Your task to perform on an android device: open app "Adobe Acrobat Reader: Edit PDF" Image 0: 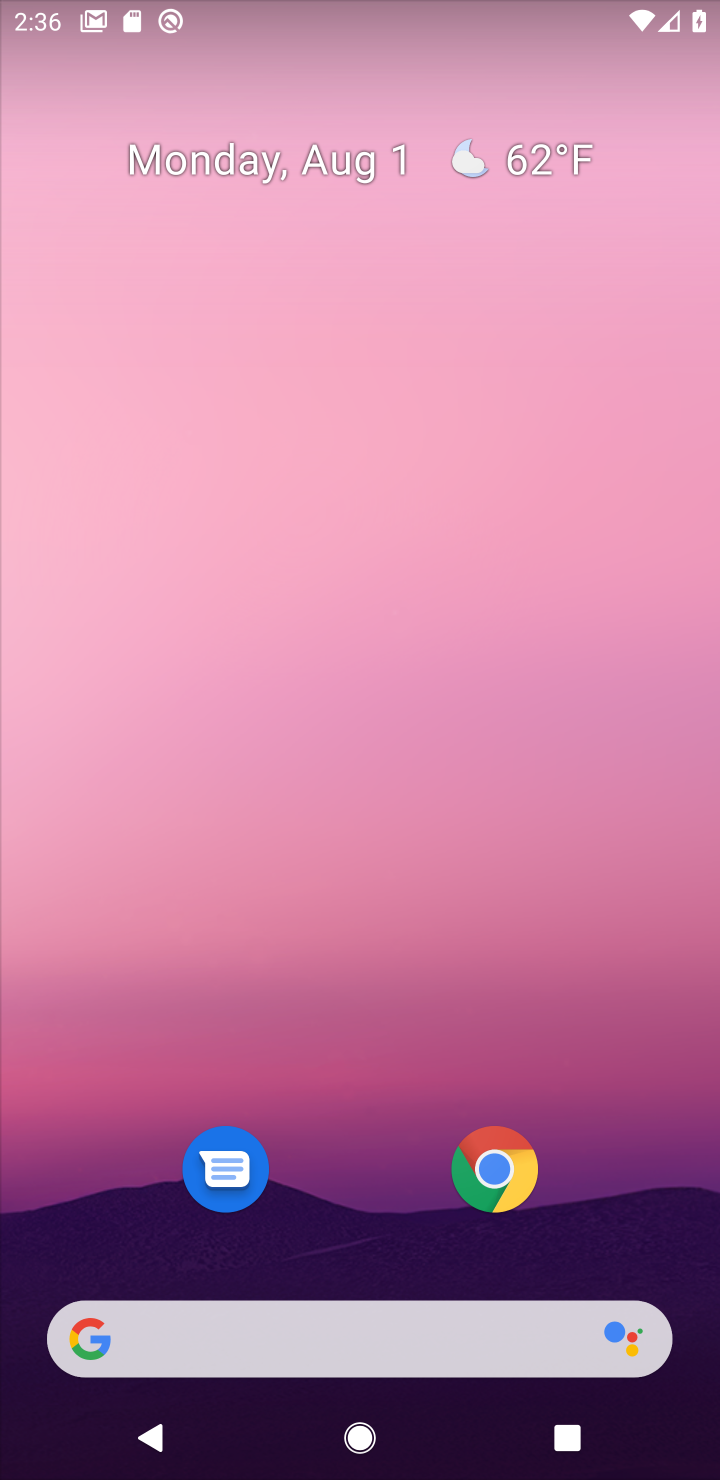
Step 0: drag from (330, 1087) to (611, 430)
Your task to perform on an android device: open app "Adobe Acrobat Reader: Edit PDF" Image 1: 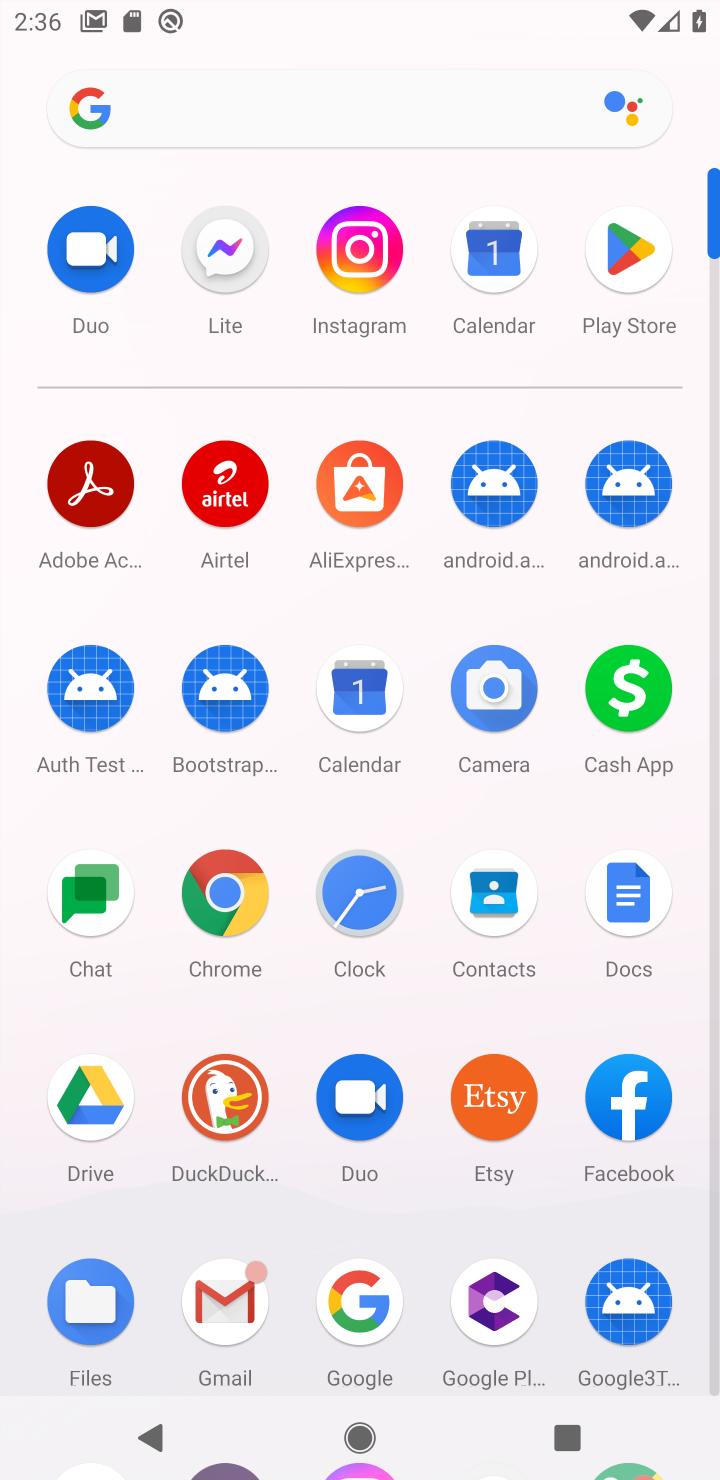
Step 1: click (606, 279)
Your task to perform on an android device: open app "Adobe Acrobat Reader: Edit PDF" Image 2: 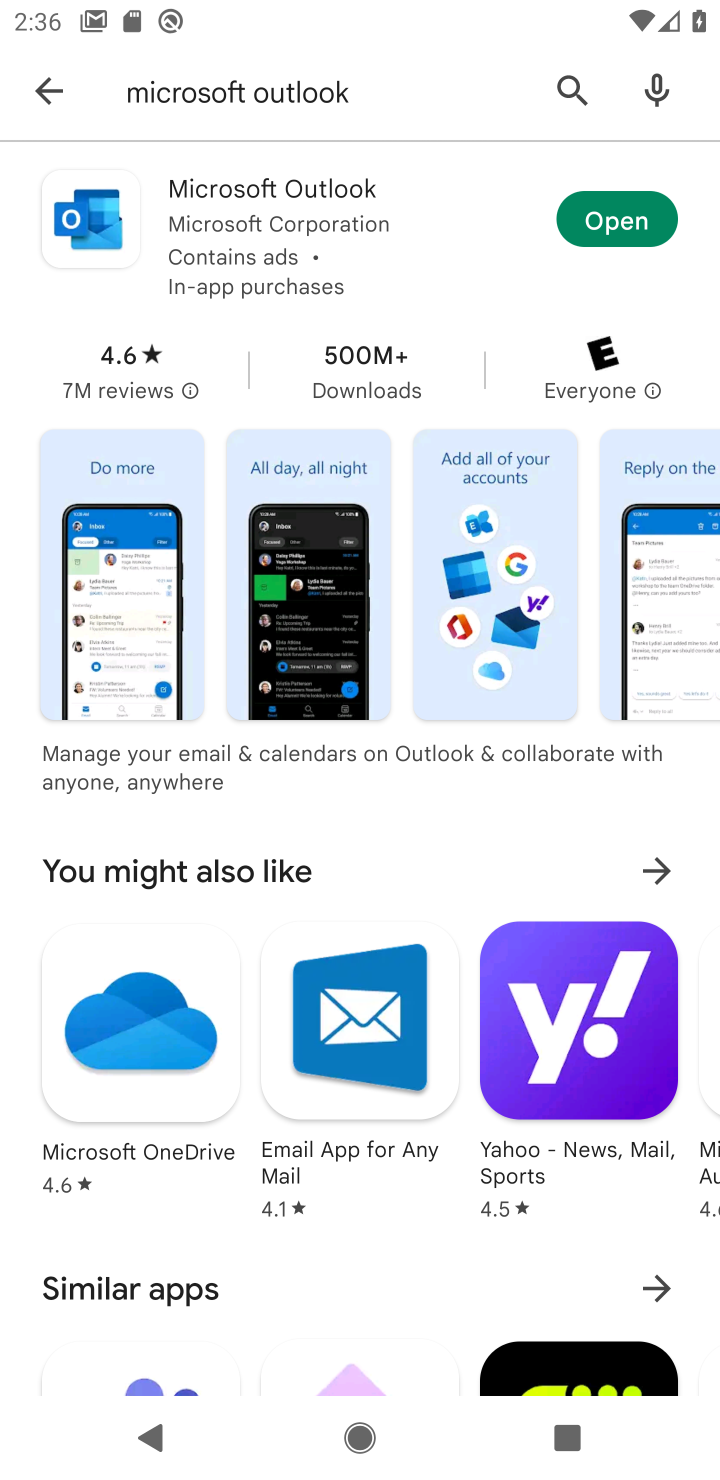
Step 2: click (52, 91)
Your task to perform on an android device: open app "Adobe Acrobat Reader: Edit PDF" Image 3: 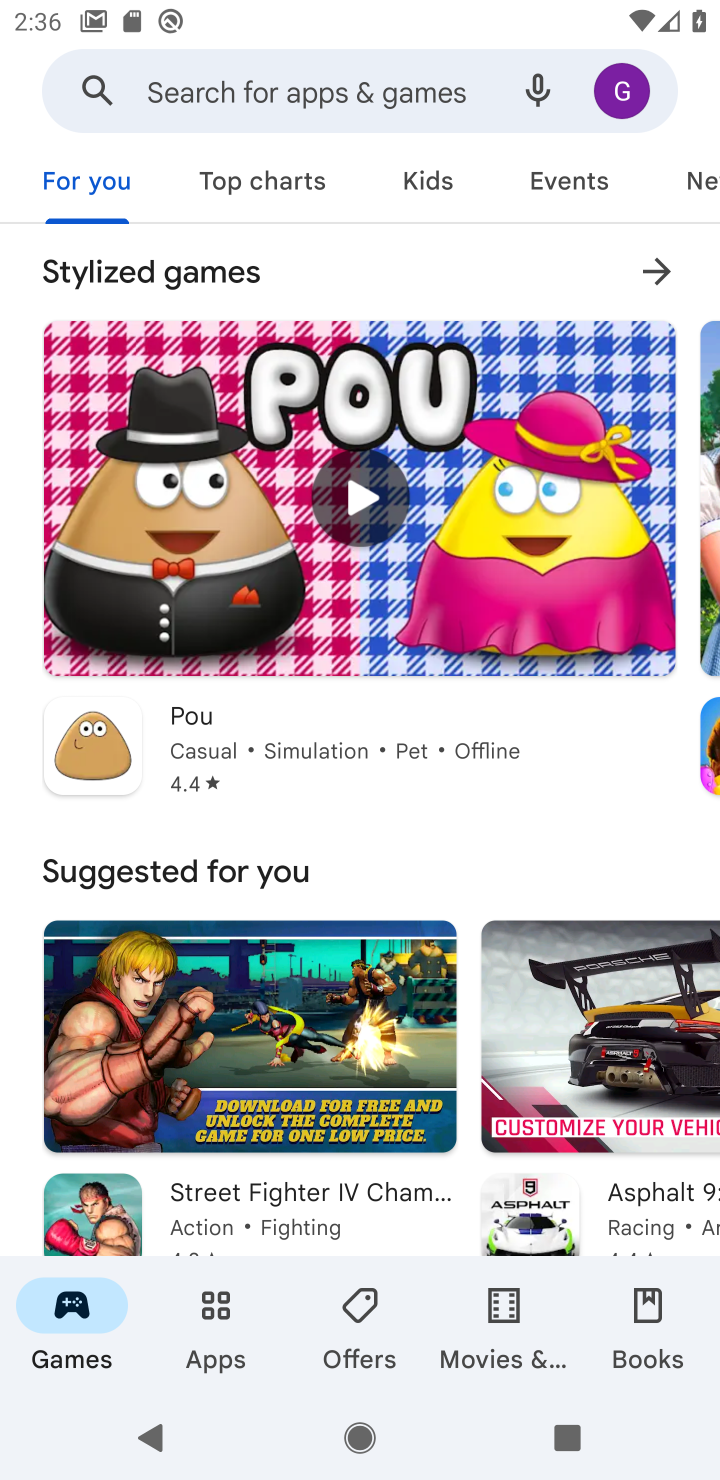
Step 3: click (232, 84)
Your task to perform on an android device: open app "Adobe Acrobat Reader: Edit PDF" Image 4: 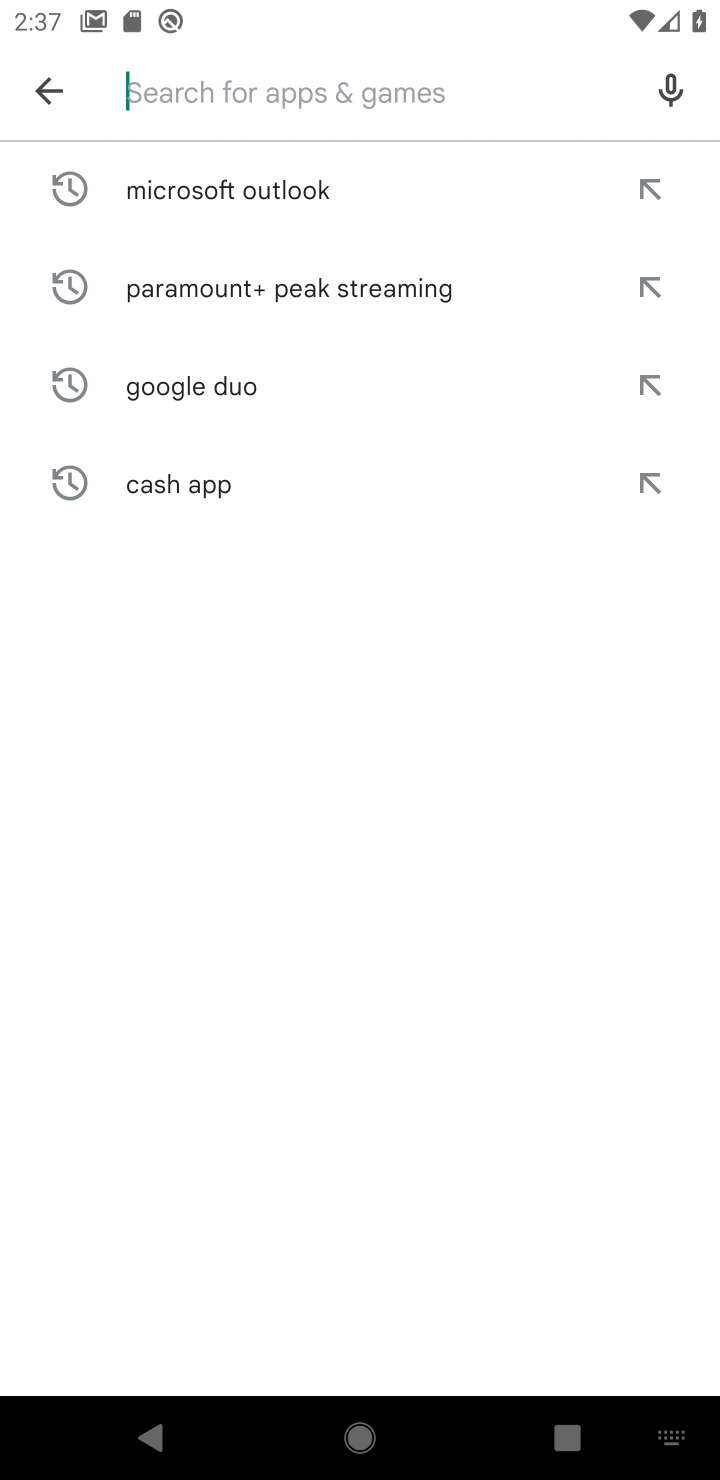
Step 4: click (331, 108)
Your task to perform on an android device: open app "Adobe Acrobat Reader: Edit PDF" Image 5: 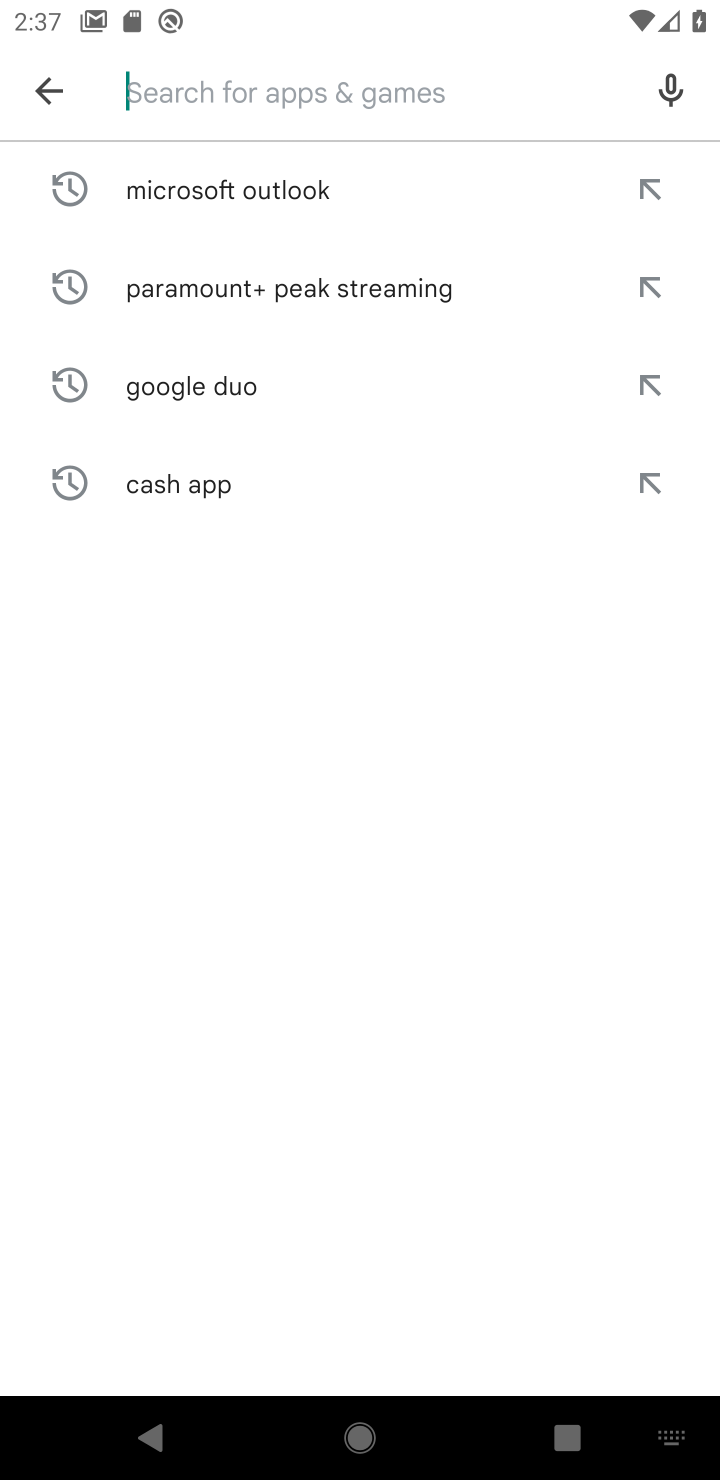
Step 5: type "Adobe Acrobat Reader: Edit PDF"
Your task to perform on an android device: open app "Adobe Acrobat Reader: Edit PDF" Image 6: 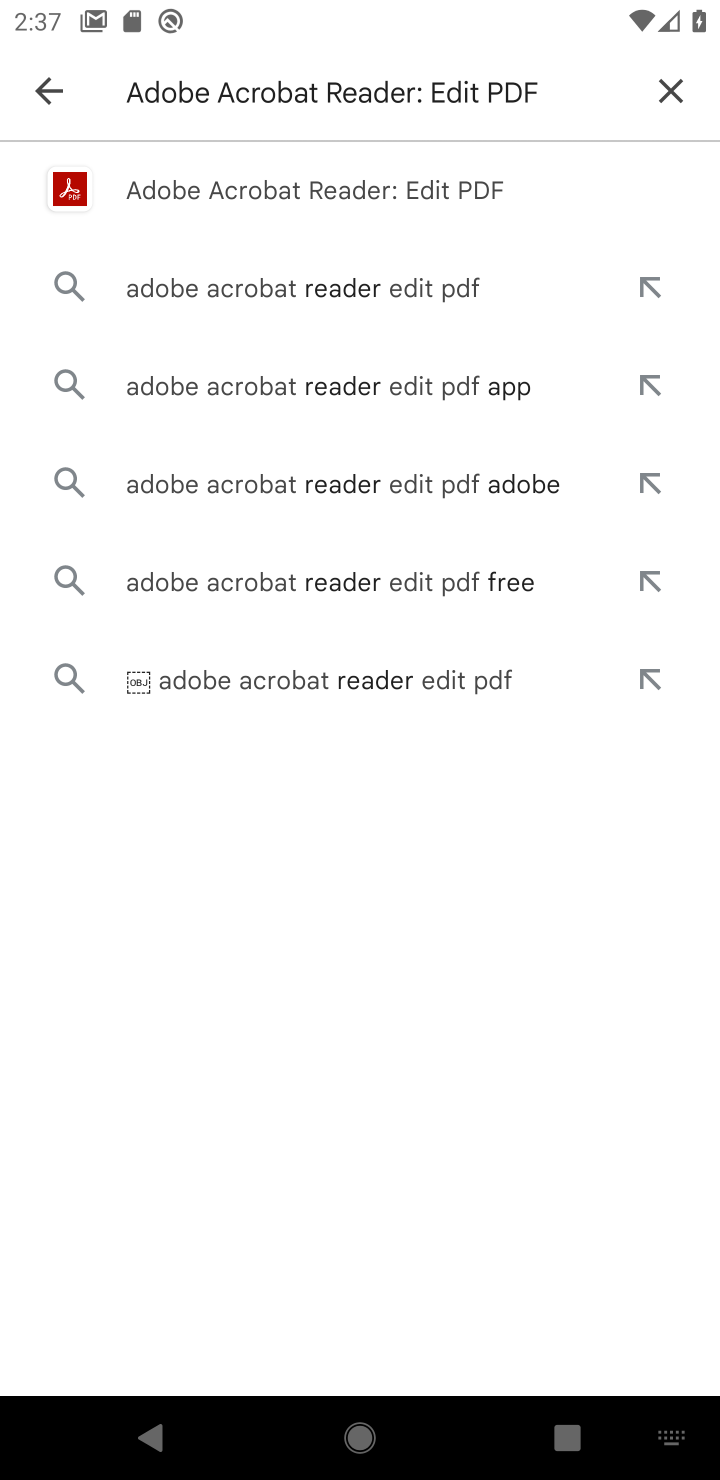
Step 6: click (256, 179)
Your task to perform on an android device: open app "Adobe Acrobat Reader: Edit PDF" Image 7: 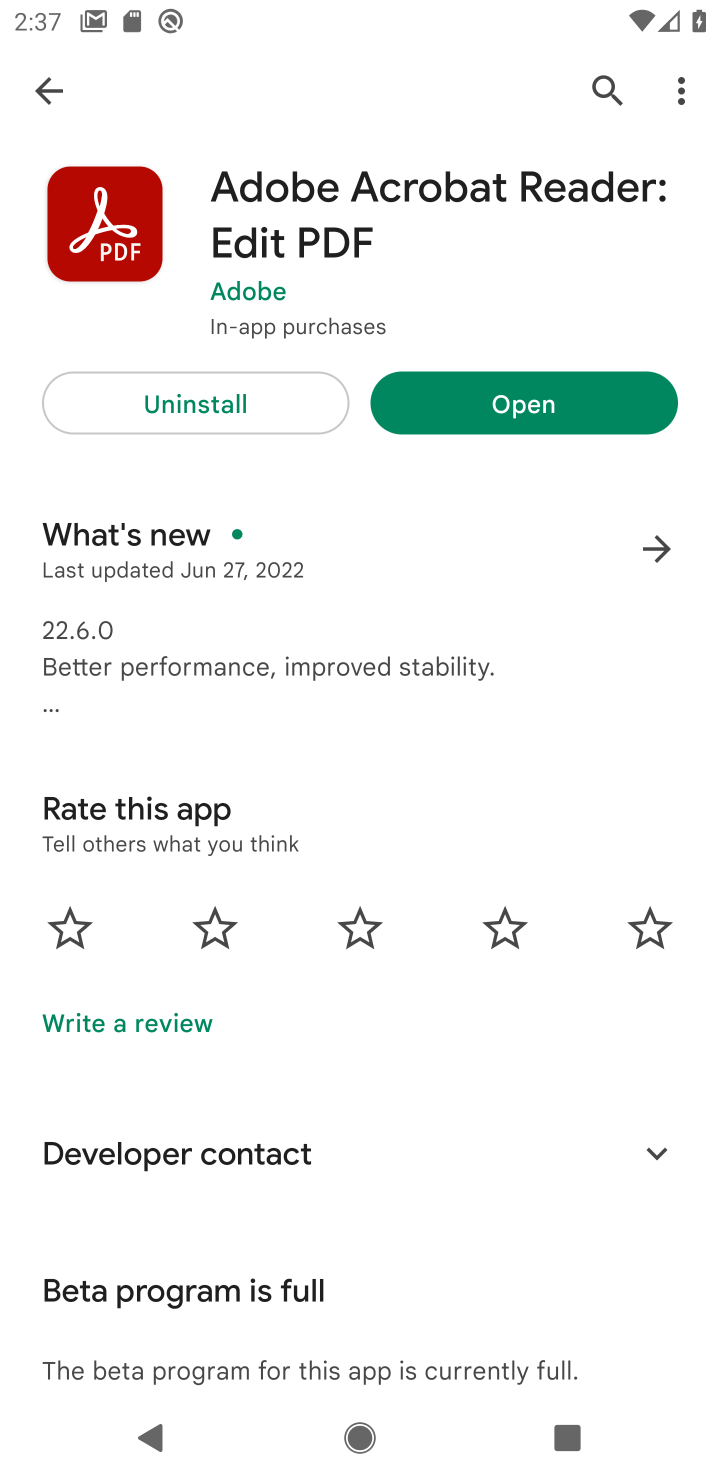
Step 7: click (504, 406)
Your task to perform on an android device: open app "Adobe Acrobat Reader: Edit PDF" Image 8: 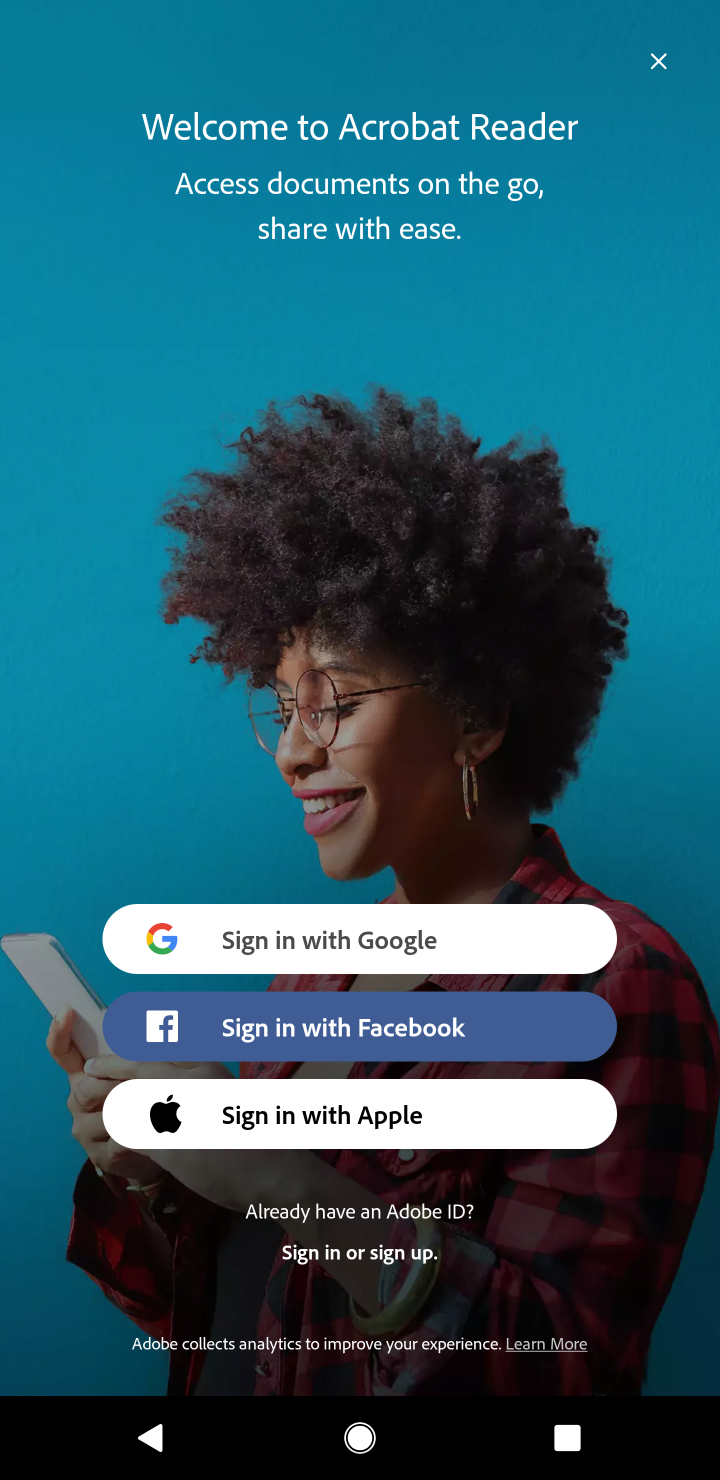
Step 8: task complete